Your task to perform on an android device: turn on improve location accuracy Image 0: 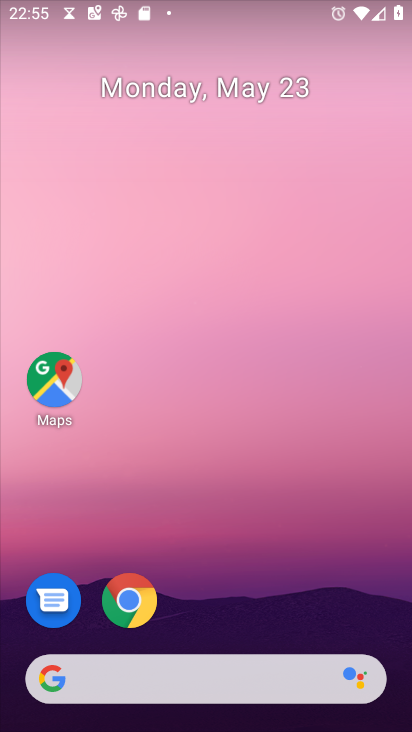
Step 0: drag from (190, 708) to (215, 162)
Your task to perform on an android device: turn on improve location accuracy Image 1: 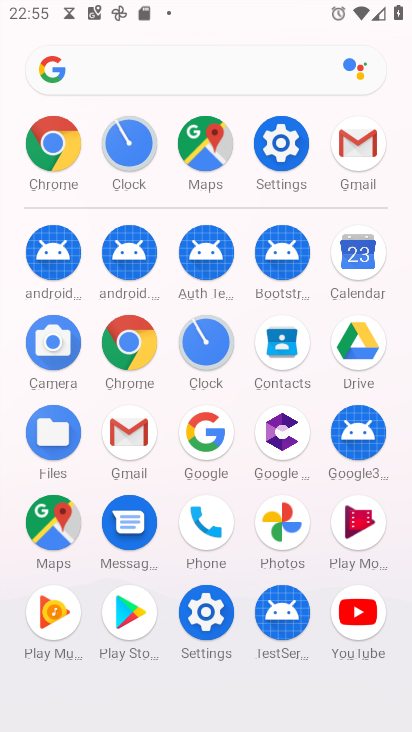
Step 1: click (275, 146)
Your task to perform on an android device: turn on improve location accuracy Image 2: 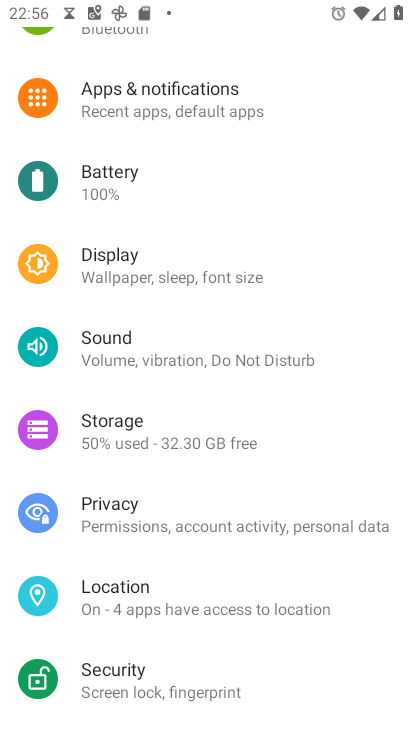
Step 2: click (100, 599)
Your task to perform on an android device: turn on improve location accuracy Image 3: 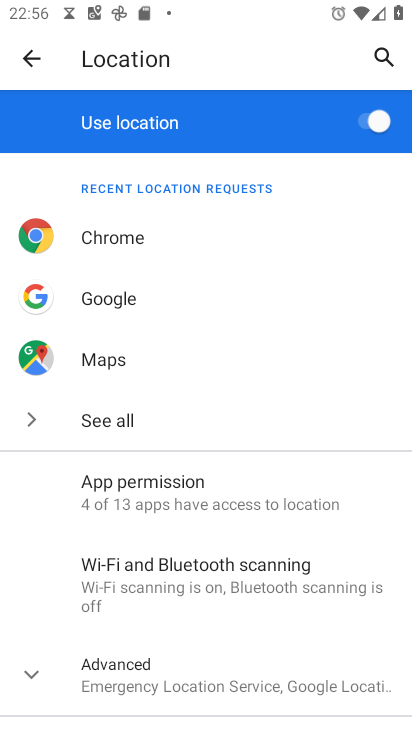
Step 3: click (111, 678)
Your task to perform on an android device: turn on improve location accuracy Image 4: 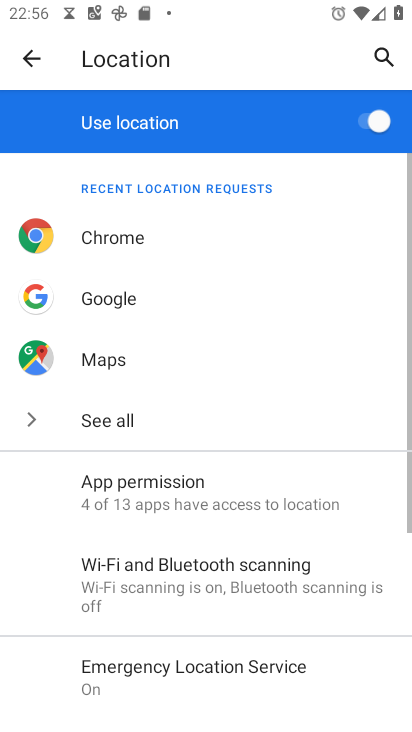
Step 4: drag from (200, 705) to (205, 425)
Your task to perform on an android device: turn on improve location accuracy Image 5: 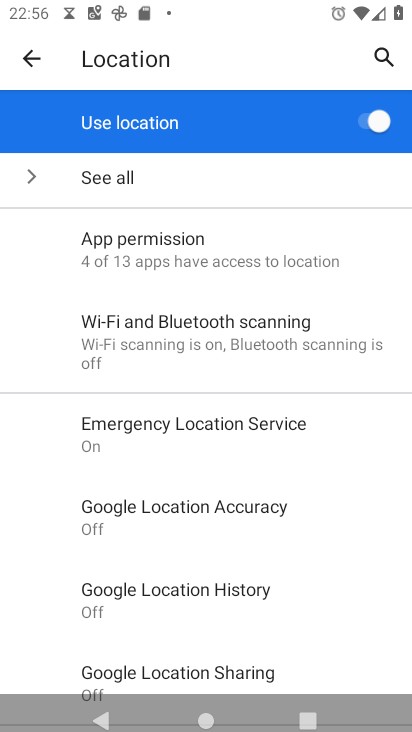
Step 5: click (194, 507)
Your task to perform on an android device: turn on improve location accuracy Image 6: 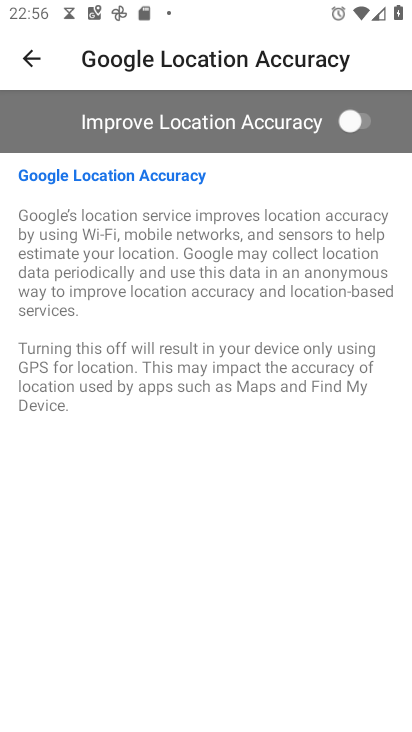
Step 6: click (368, 121)
Your task to perform on an android device: turn on improve location accuracy Image 7: 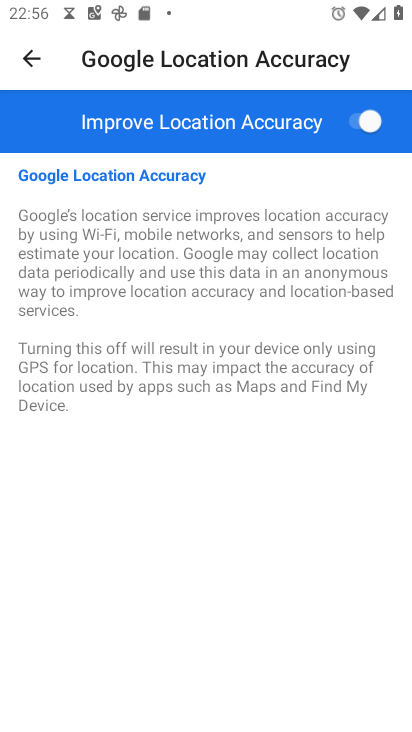
Step 7: task complete